Your task to perform on an android device: Is it going to rain this weekend? Image 0: 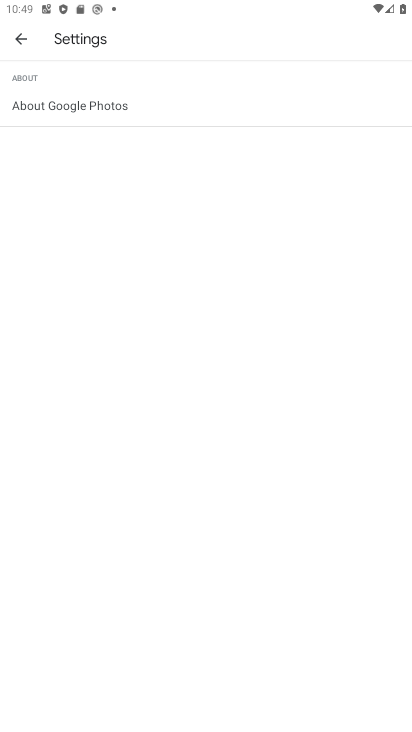
Step 0: press home button
Your task to perform on an android device: Is it going to rain this weekend? Image 1: 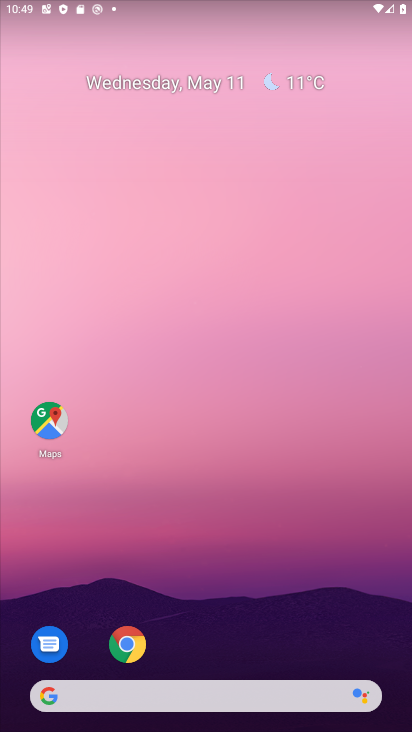
Step 1: click (296, 75)
Your task to perform on an android device: Is it going to rain this weekend? Image 2: 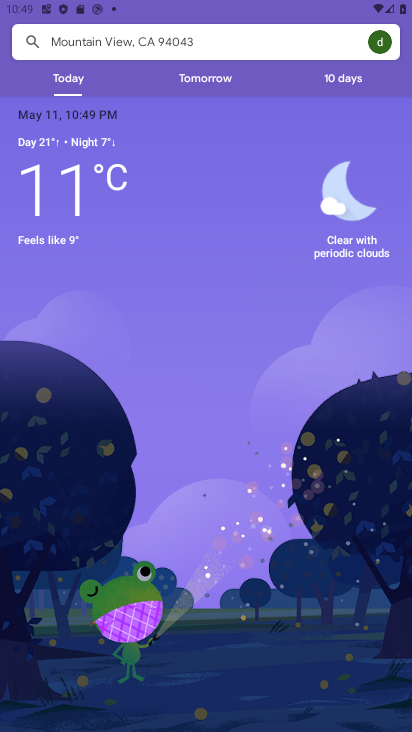
Step 2: click (345, 72)
Your task to perform on an android device: Is it going to rain this weekend? Image 3: 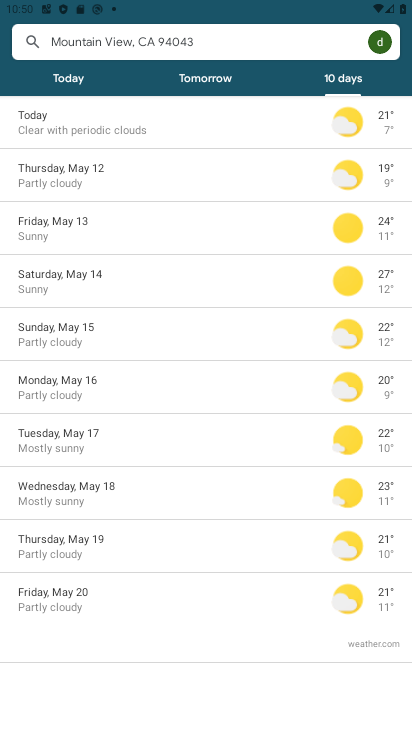
Step 3: task complete